Your task to perform on an android device: Toggle the flashlight Image 0: 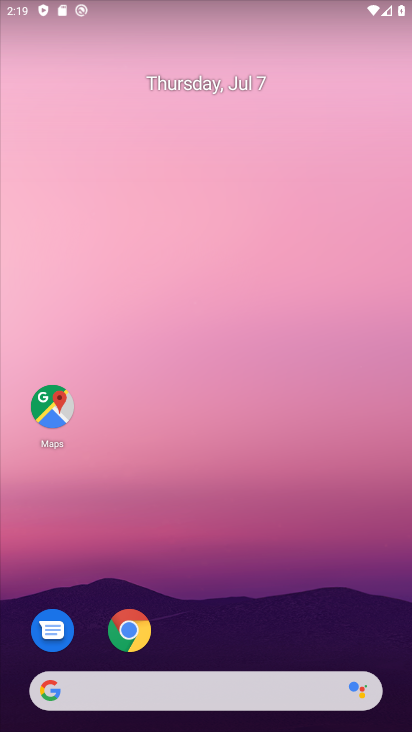
Step 0: drag from (352, 626) to (323, 269)
Your task to perform on an android device: Toggle the flashlight Image 1: 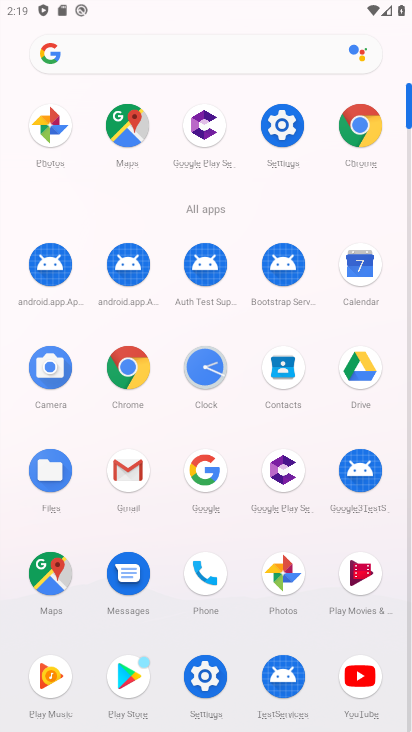
Step 1: click (283, 143)
Your task to perform on an android device: Toggle the flashlight Image 2: 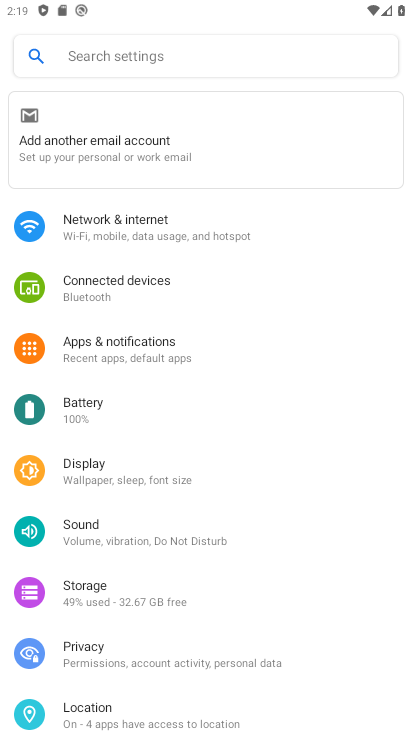
Step 2: task complete